Your task to perform on an android device: check storage Image 0: 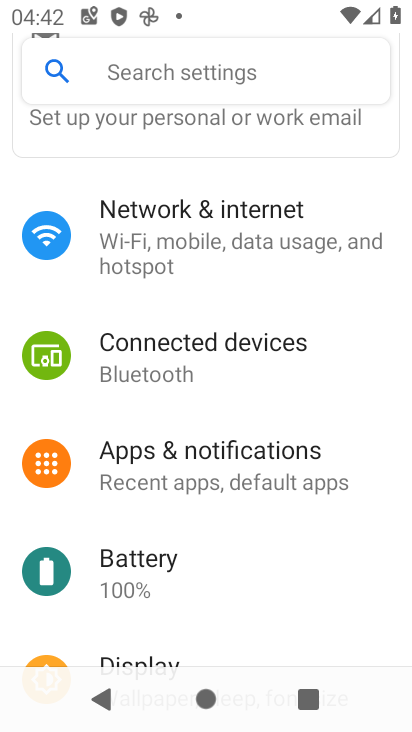
Step 0: press home button
Your task to perform on an android device: check storage Image 1: 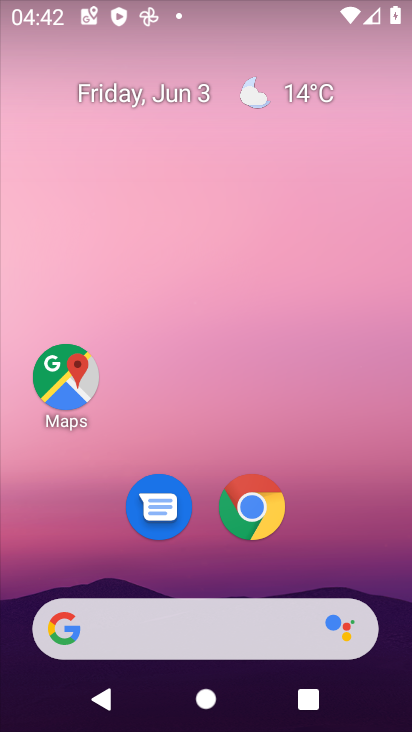
Step 1: drag from (340, 557) to (280, 96)
Your task to perform on an android device: check storage Image 2: 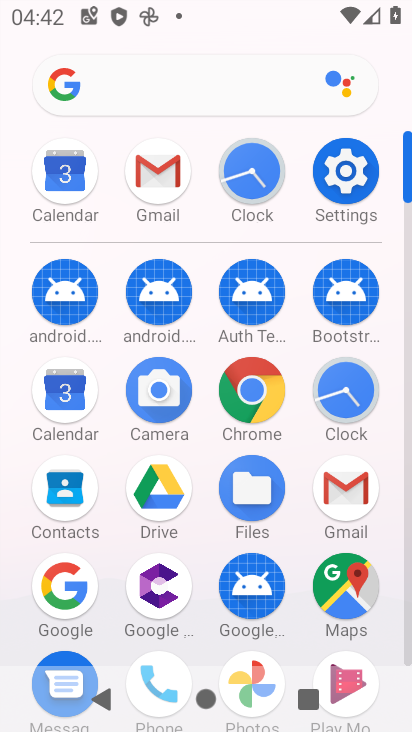
Step 2: click (366, 176)
Your task to perform on an android device: check storage Image 3: 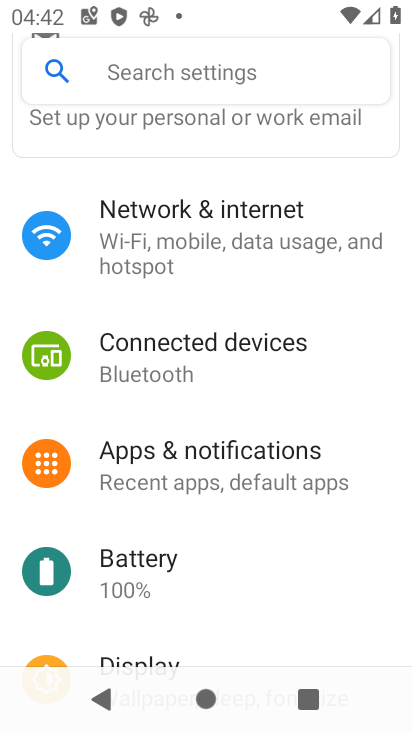
Step 3: drag from (276, 626) to (274, 212)
Your task to perform on an android device: check storage Image 4: 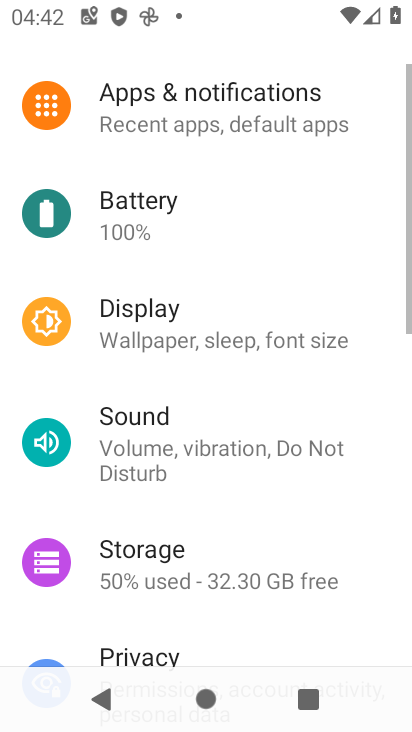
Step 4: click (218, 555)
Your task to perform on an android device: check storage Image 5: 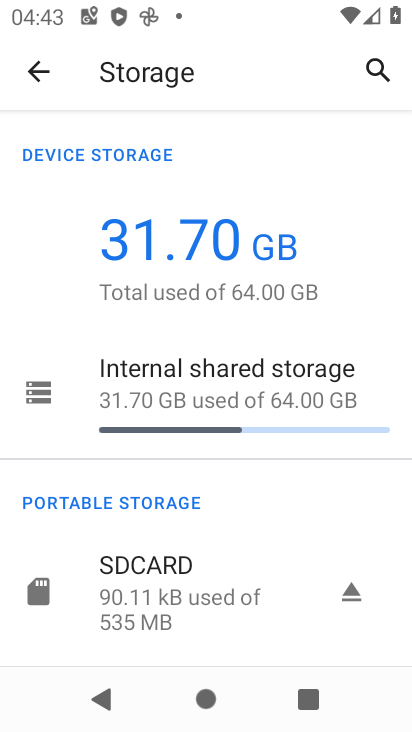
Step 5: task complete